Your task to perform on an android device: find photos in the google photos app Image 0: 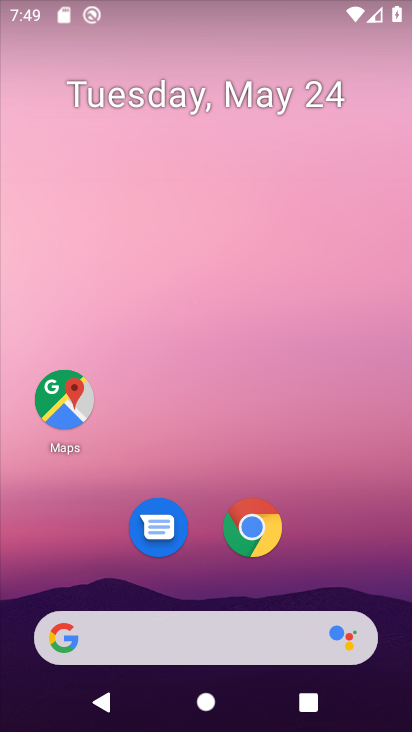
Step 0: drag from (358, 594) to (265, 208)
Your task to perform on an android device: find photos in the google photos app Image 1: 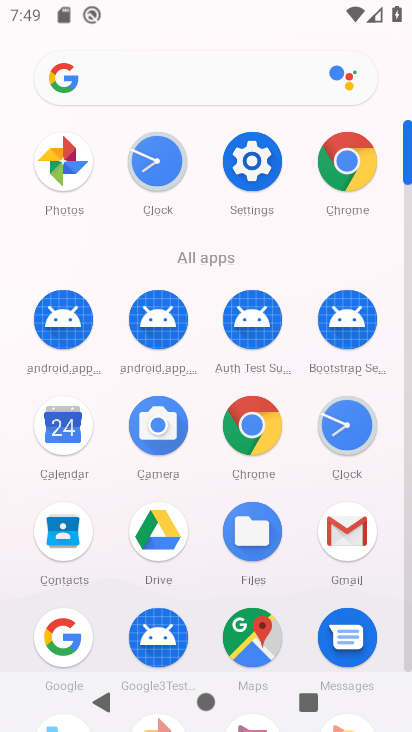
Step 1: click (73, 163)
Your task to perform on an android device: find photos in the google photos app Image 2: 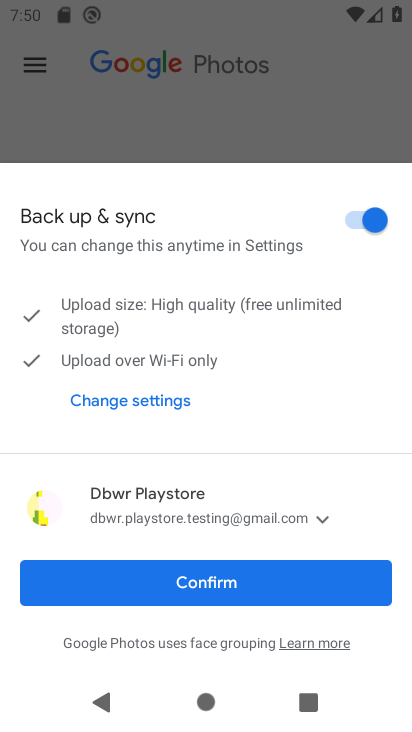
Step 2: click (236, 574)
Your task to perform on an android device: find photos in the google photos app Image 3: 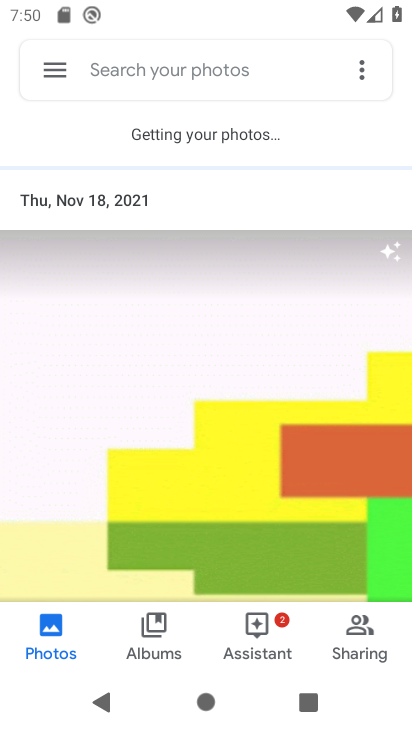
Step 3: task complete